Your task to perform on an android device: turn off airplane mode Image 0: 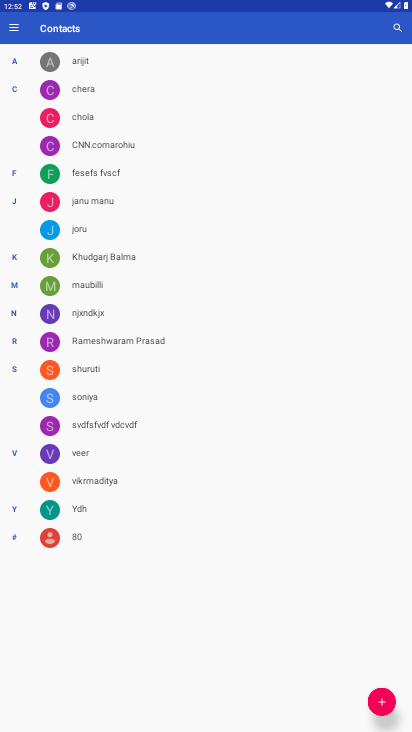
Step 0: press home button
Your task to perform on an android device: turn off airplane mode Image 1: 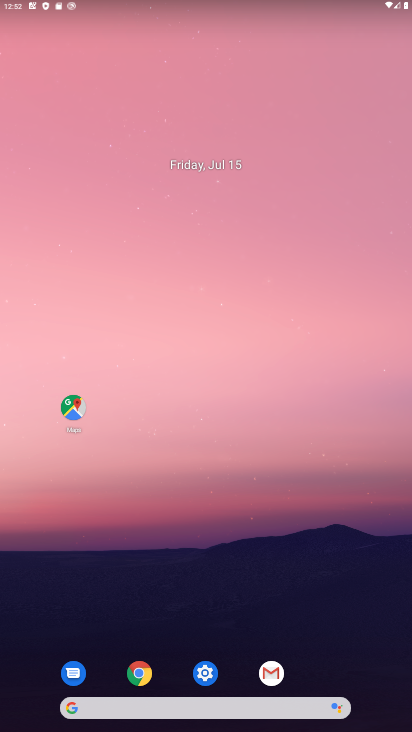
Step 1: click (201, 671)
Your task to perform on an android device: turn off airplane mode Image 2: 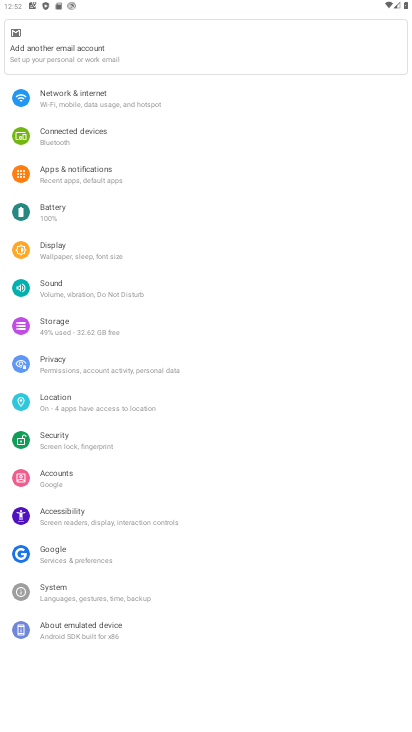
Step 2: click (97, 104)
Your task to perform on an android device: turn off airplane mode Image 3: 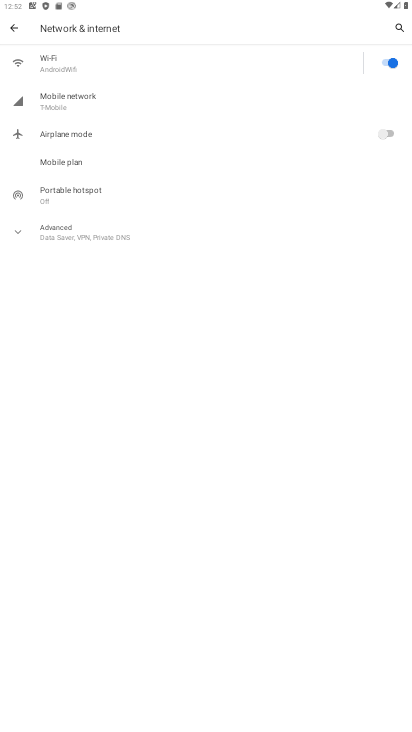
Step 3: click (122, 67)
Your task to perform on an android device: turn off airplane mode Image 4: 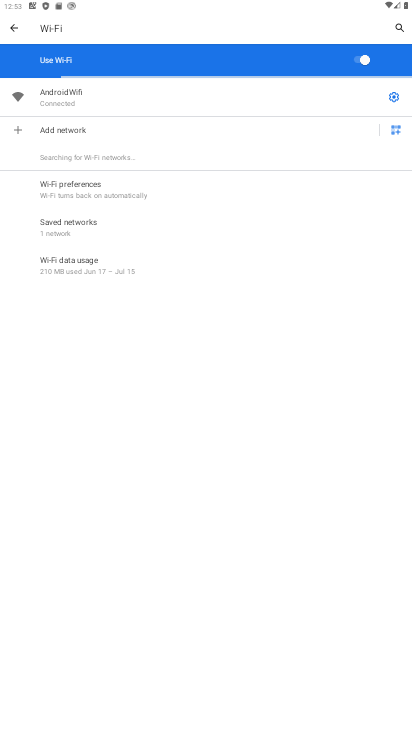
Step 4: click (351, 60)
Your task to perform on an android device: turn off airplane mode Image 5: 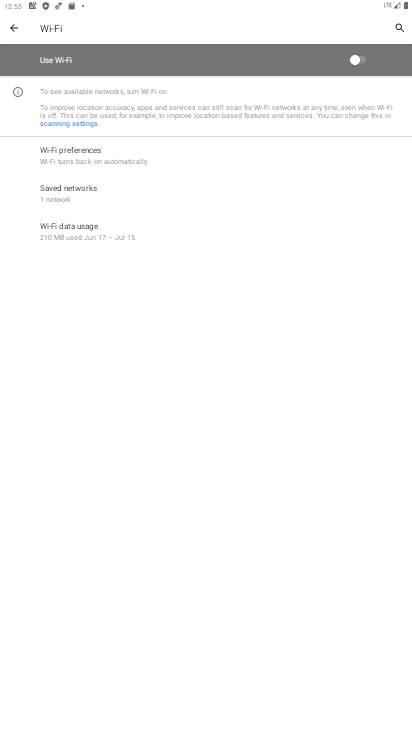
Step 5: task complete